Your task to perform on an android device: Open sound settings Image 0: 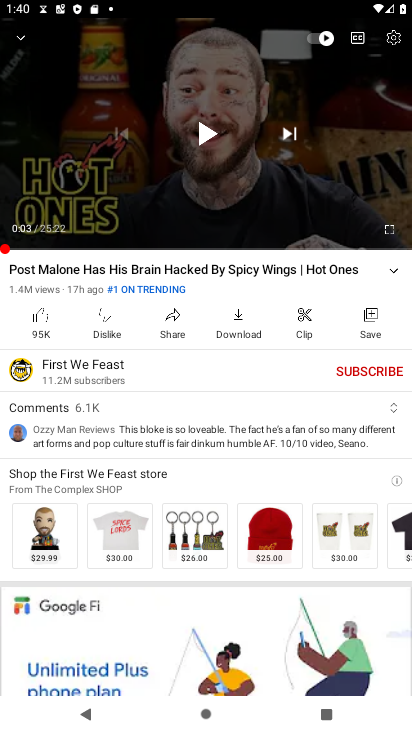
Step 0: press home button
Your task to perform on an android device: Open sound settings Image 1: 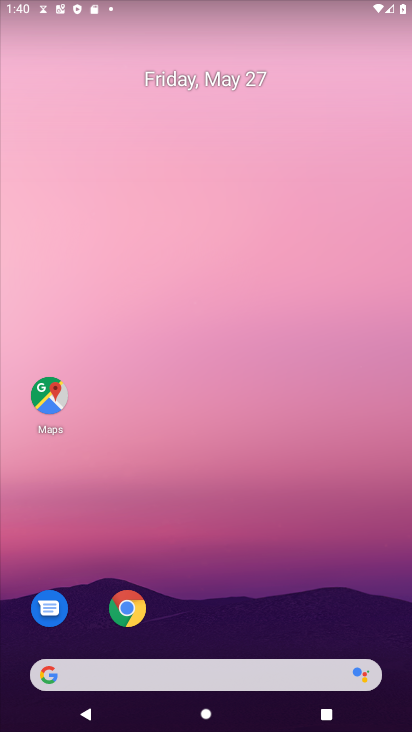
Step 1: drag from (255, 557) to (267, 74)
Your task to perform on an android device: Open sound settings Image 2: 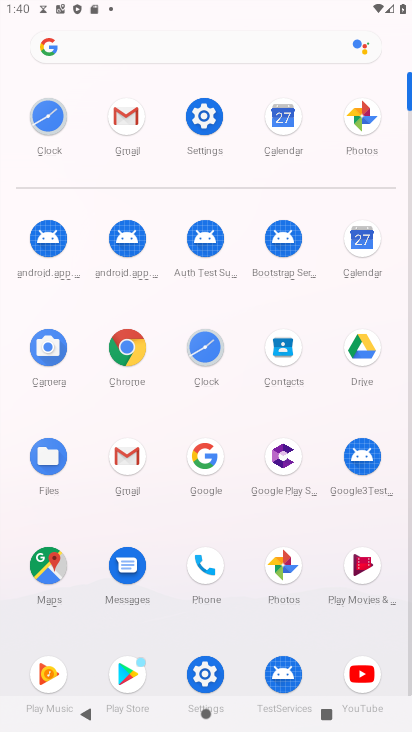
Step 2: click (196, 106)
Your task to perform on an android device: Open sound settings Image 3: 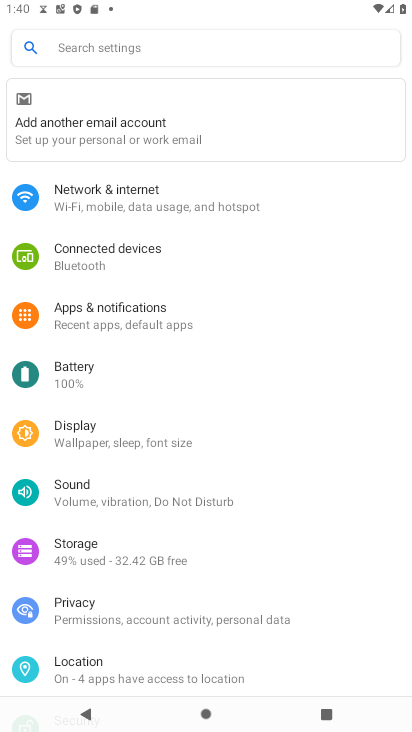
Step 3: click (90, 496)
Your task to perform on an android device: Open sound settings Image 4: 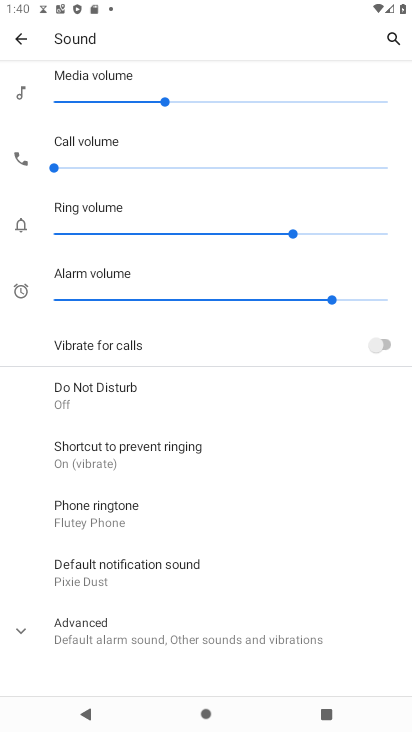
Step 4: task complete